Your task to perform on an android device: Go to Yahoo.com Image 0: 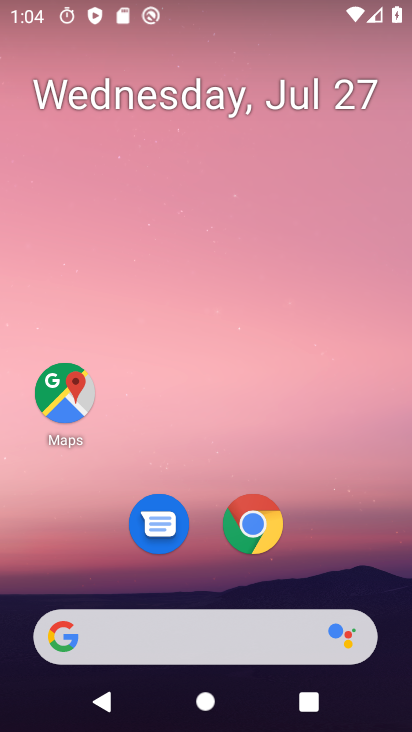
Step 0: drag from (315, 512) to (318, 72)
Your task to perform on an android device: Go to Yahoo.com Image 1: 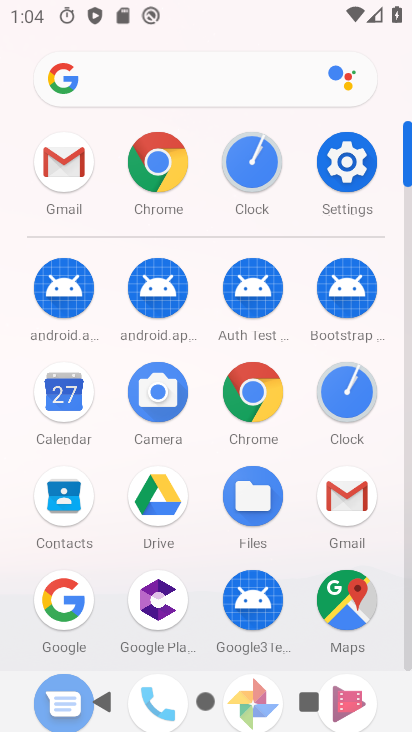
Step 1: press home button
Your task to perform on an android device: Go to Yahoo.com Image 2: 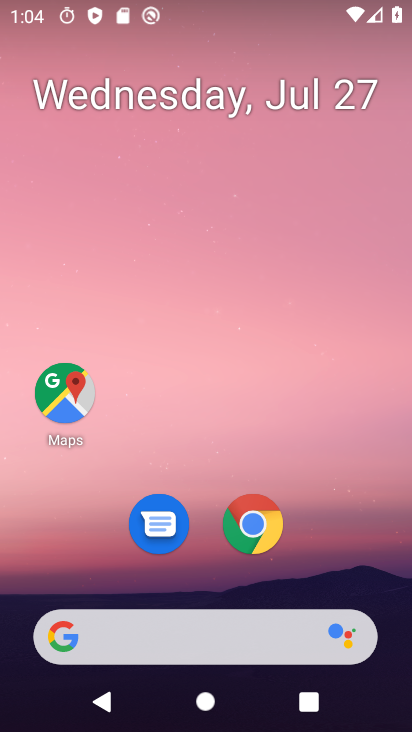
Step 2: click (227, 644)
Your task to perform on an android device: Go to Yahoo.com Image 3: 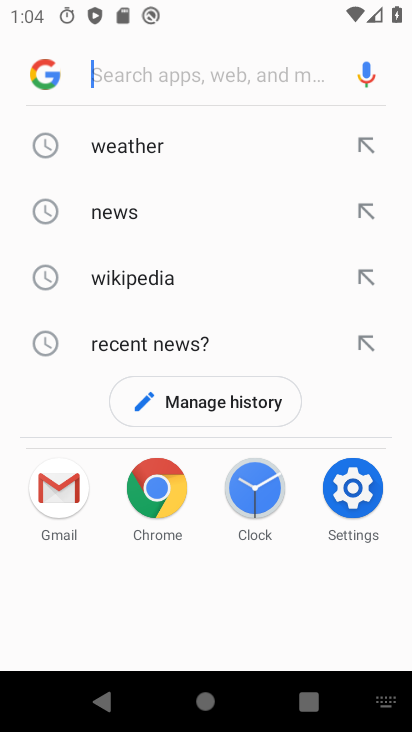
Step 3: type "yahoo.com"
Your task to perform on an android device: Go to Yahoo.com Image 4: 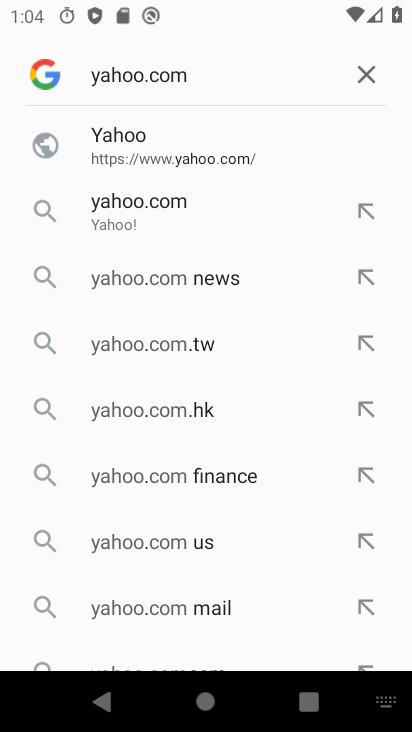
Step 4: click (161, 142)
Your task to perform on an android device: Go to Yahoo.com Image 5: 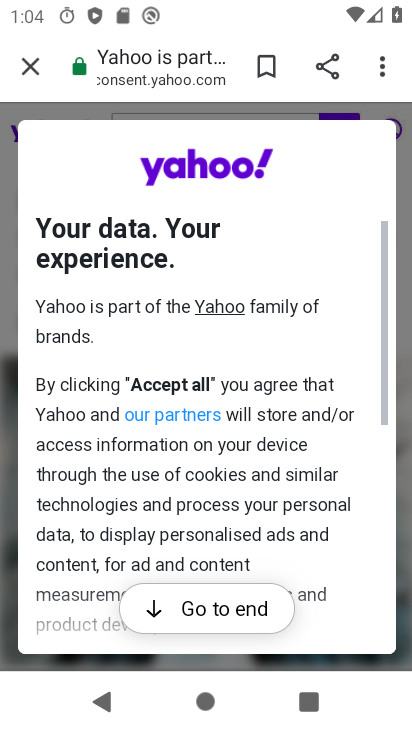
Step 5: click (200, 610)
Your task to perform on an android device: Go to Yahoo.com Image 6: 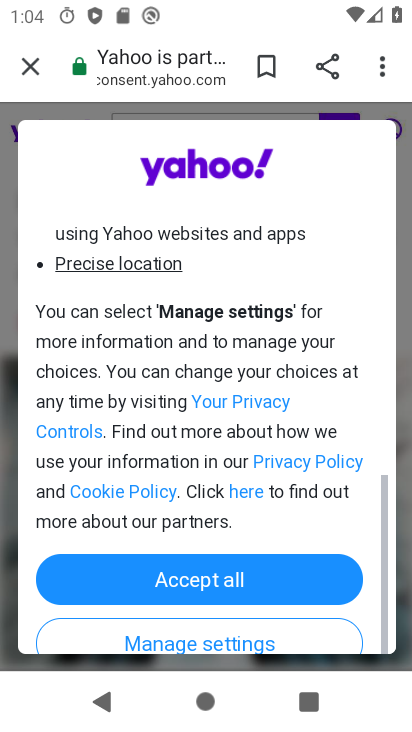
Step 6: click (211, 568)
Your task to perform on an android device: Go to Yahoo.com Image 7: 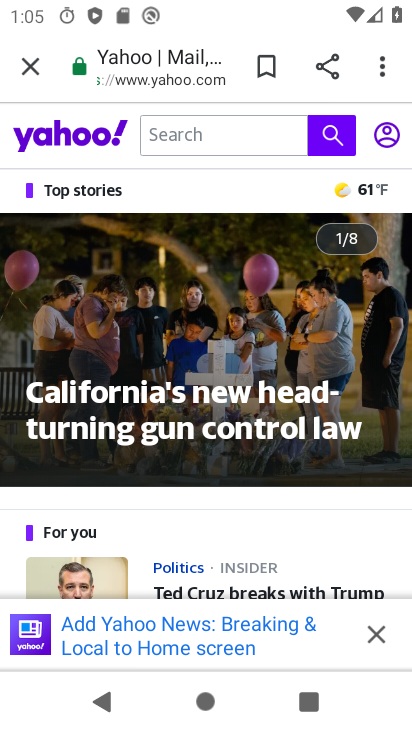
Step 7: task complete